Your task to perform on an android device: Open location settings Image 0: 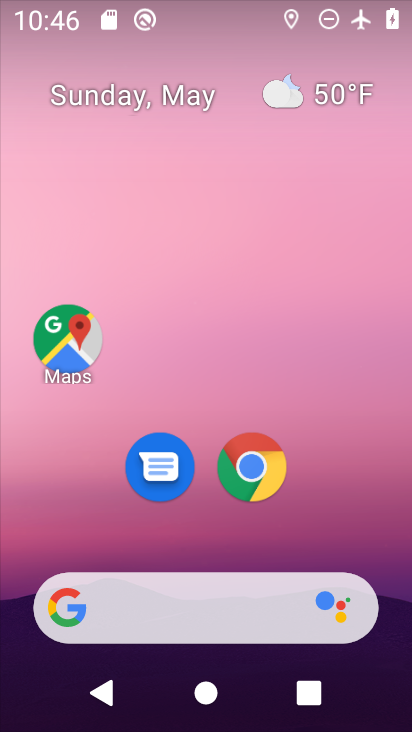
Step 0: drag from (201, 560) to (197, 212)
Your task to perform on an android device: Open location settings Image 1: 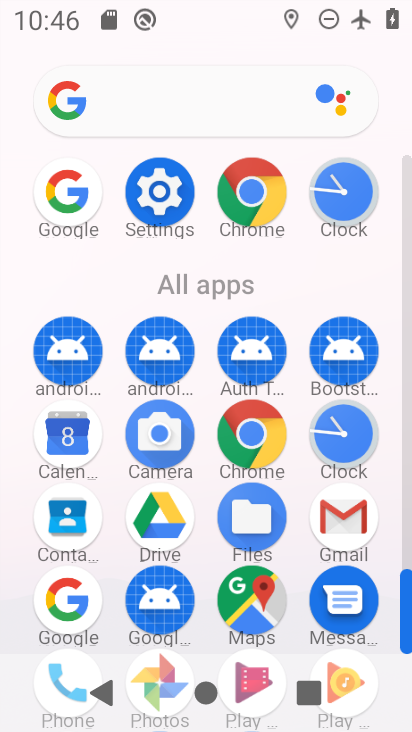
Step 1: click (150, 185)
Your task to perform on an android device: Open location settings Image 2: 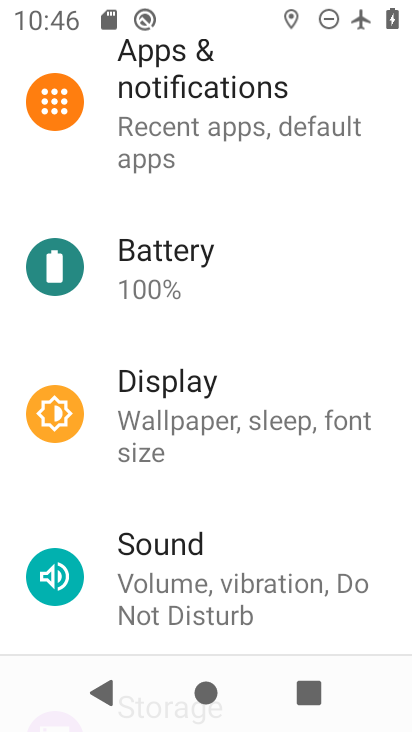
Step 2: drag from (218, 536) to (217, 232)
Your task to perform on an android device: Open location settings Image 3: 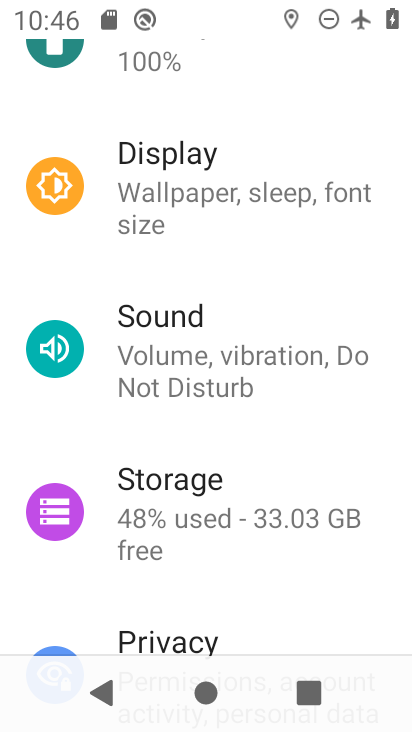
Step 3: drag from (158, 608) to (217, 213)
Your task to perform on an android device: Open location settings Image 4: 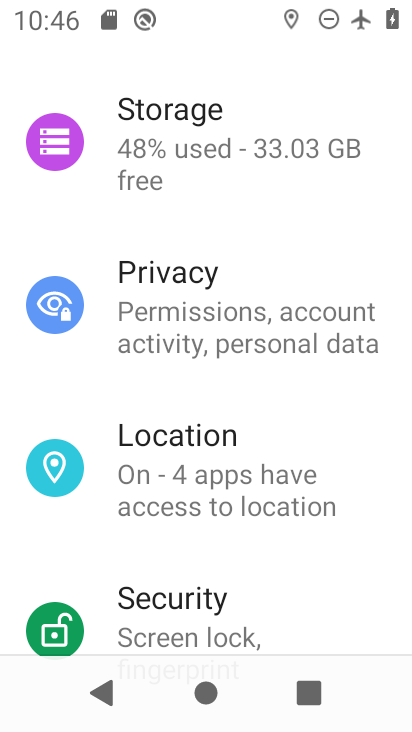
Step 4: click (233, 495)
Your task to perform on an android device: Open location settings Image 5: 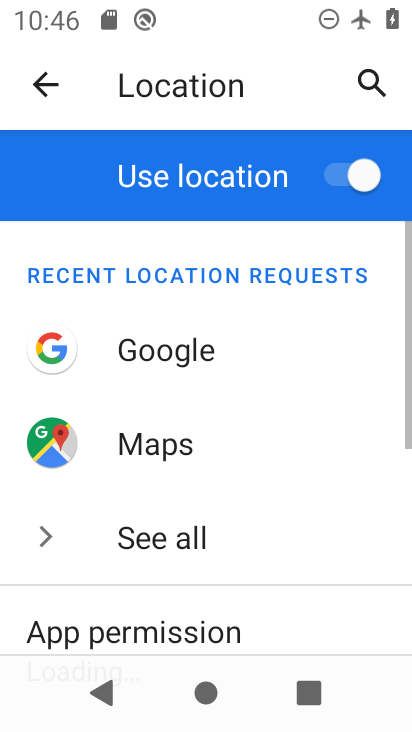
Step 5: task complete